Your task to perform on an android device: Go to CNN.com Image 0: 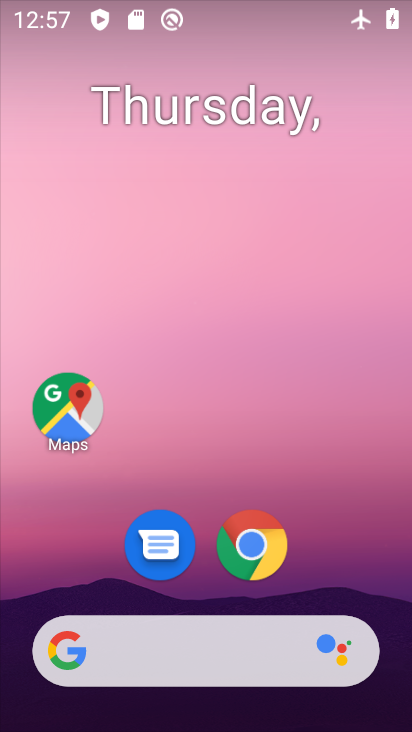
Step 0: click (174, 668)
Your task to perform on an android device: Go to CNN.com Image 1: 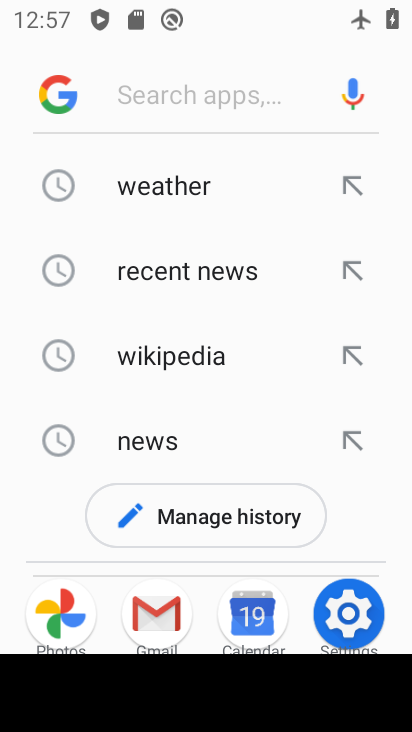
Step 1: type "cnn.com"
Your task to perform on an android device: Go to CNN.com Image 2: 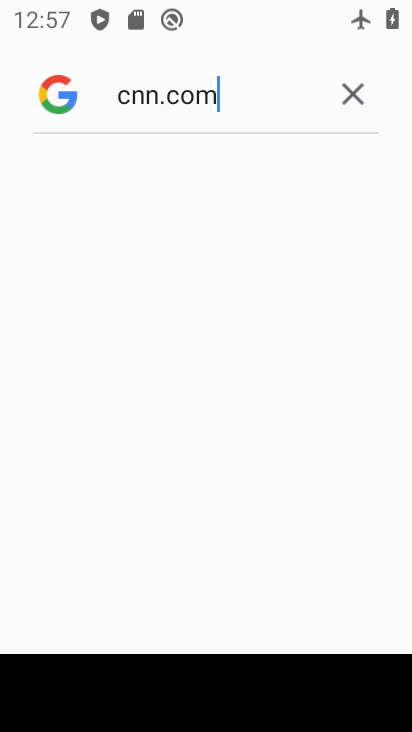
Step 2: task complete